Your task to perform on an android device: Open privacy settings Image 0: 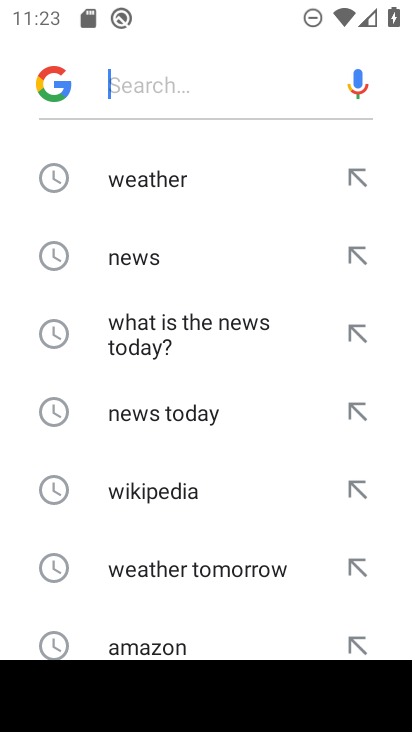
Step 0: press home button
Your task to perform on an android device: Open privacy settings Image 1: 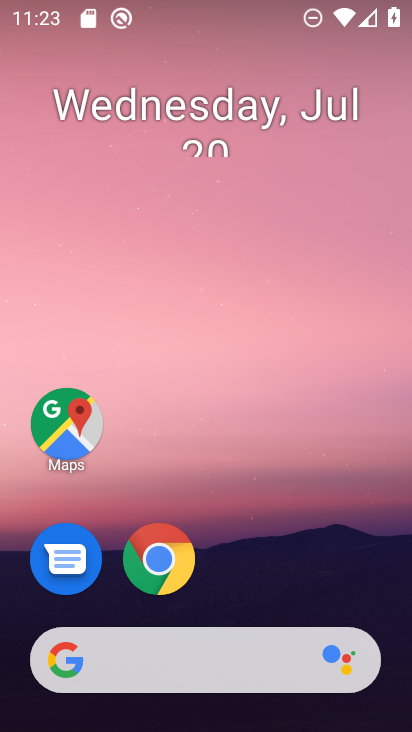
Step 1: drag from (287, 609) to (286, 24)
Your task to perform on an android device: Open privacy settings Image 2: 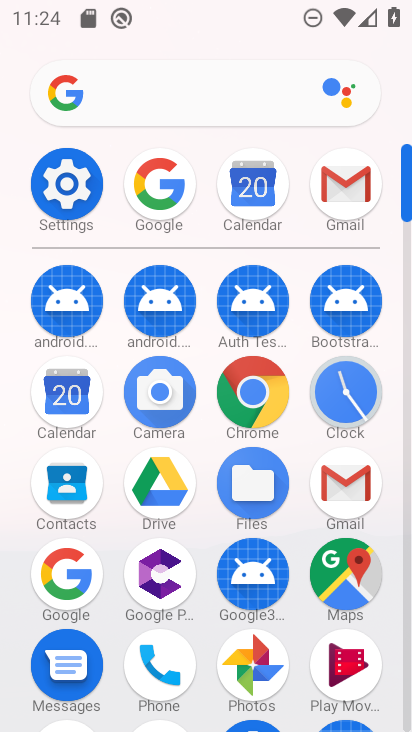
Step 2: click (83, 214)
Your task to perform on an android device: Open privacy settings Image 3: 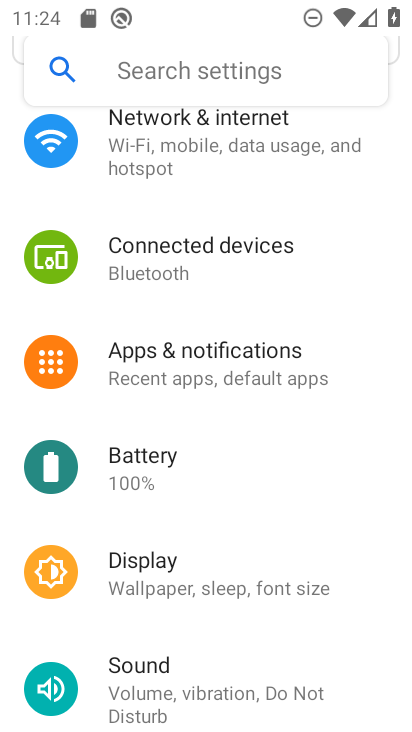
Step 3: drag from (163, 443) to (179, 137)
Your task to perform on an android device: Open privacy settings Image 4: 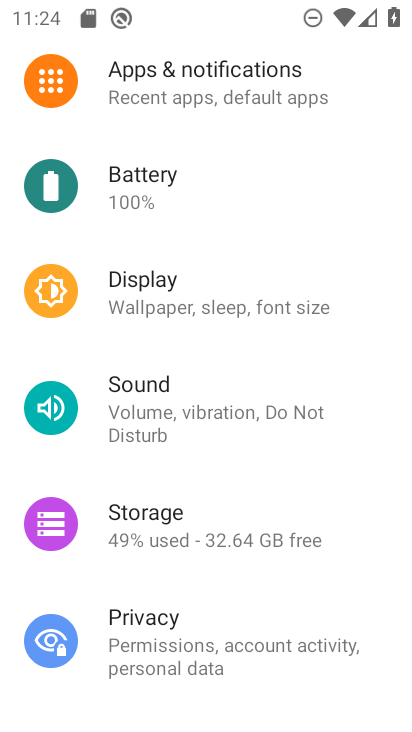
Step 4: click (263, 621)
Your task to perform on an android device: Open privacy settings Image 5: 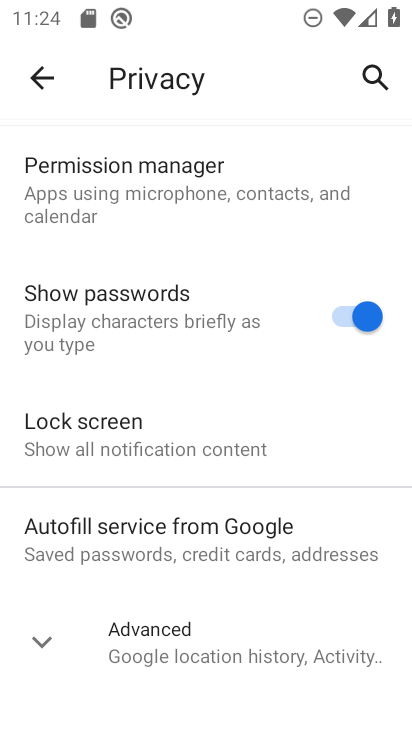
Step 5: task complete